Your task to perform on an android device: Open location settings Image 0: 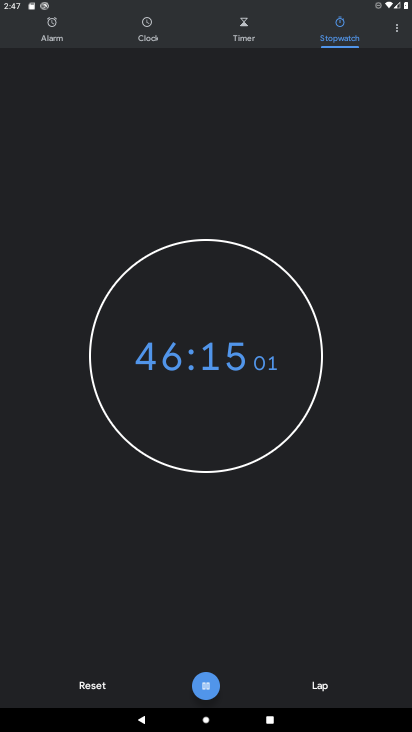
Step 0: press home button
Your task to perform on an android device: Open location settings Image 1: 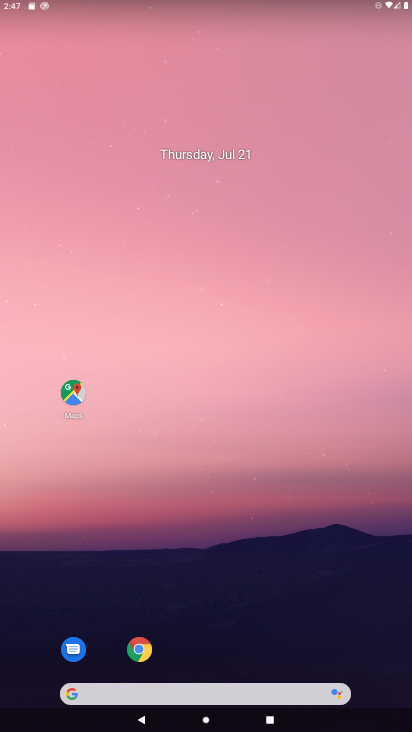
Step 1: drag from (313, 596) to (262, 46)
Your task to perform on an android device: Open location settings Image 2: 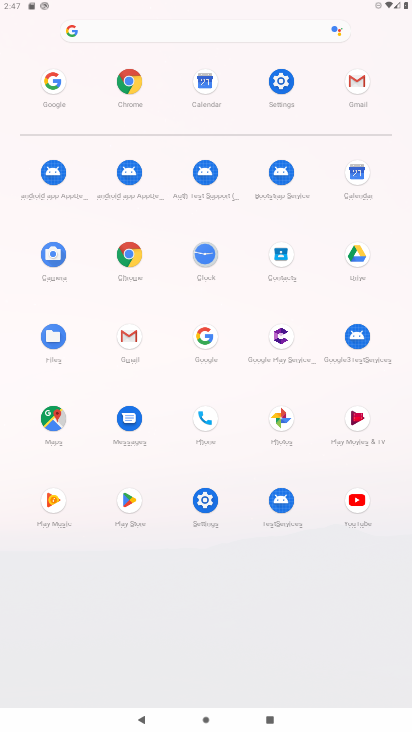
Step 2: click (281, 76)
Your task to perform on an android device: Open location settings Image 3: 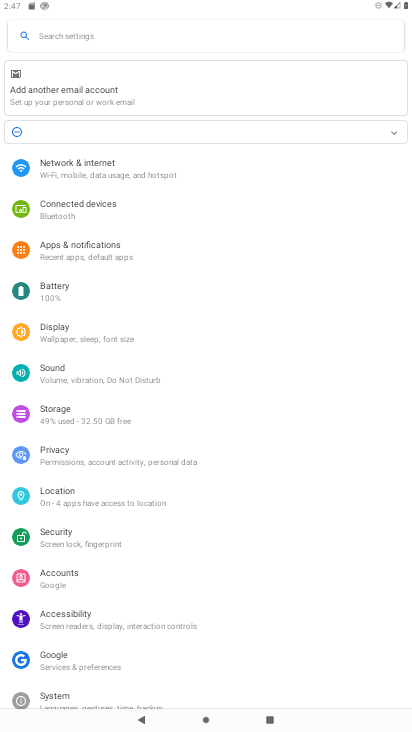
Step 3: click (77, 497)
Your task to perform on an android device: Open location settings Image 4: 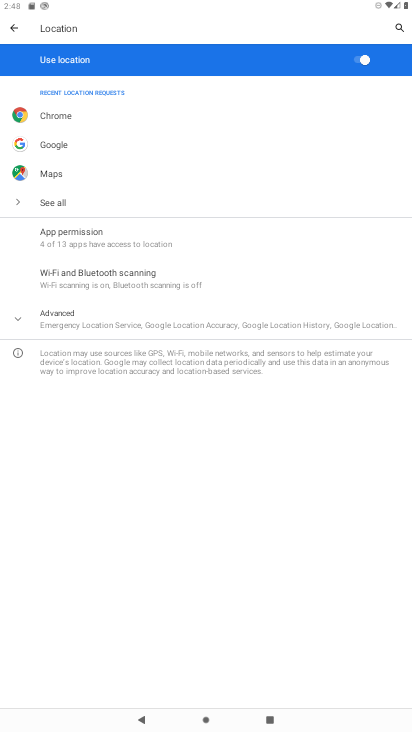
Step 4: task complete